Your task to perform on an android device: Go to CNN.com Image 0: 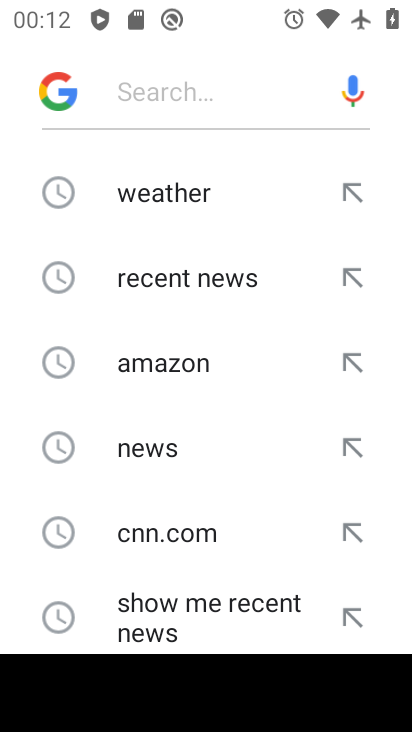
Step 0: press home button
Your task to perform on an android device: Go to CNN.com Image 1: 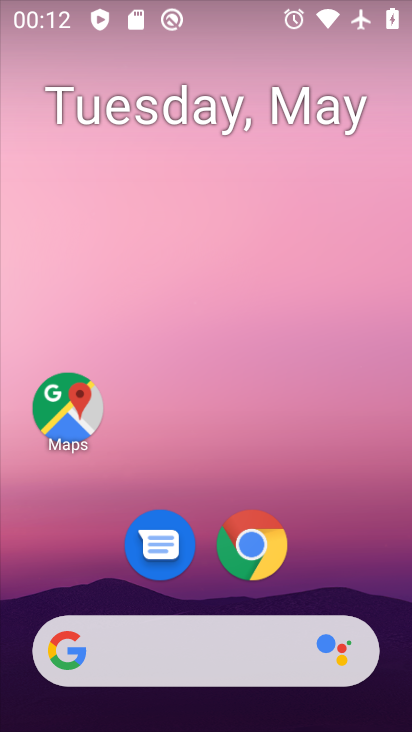
Step 1: click (244, 532)
Your task to perform on an android device: Go to CNN.com Image 2: 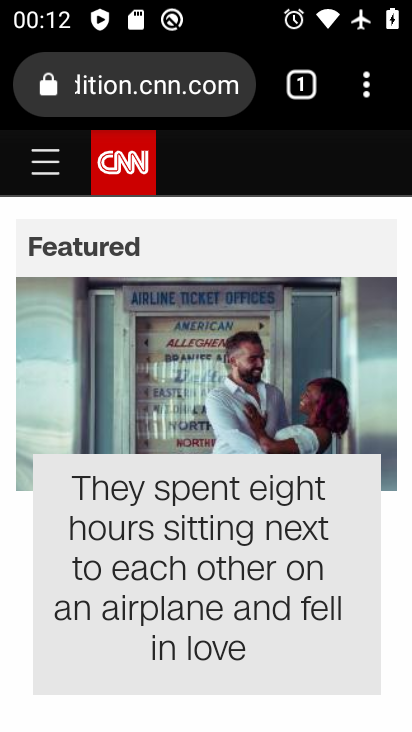
Step 2: task complete